Your task to perform on an android device: check android version Image 0: 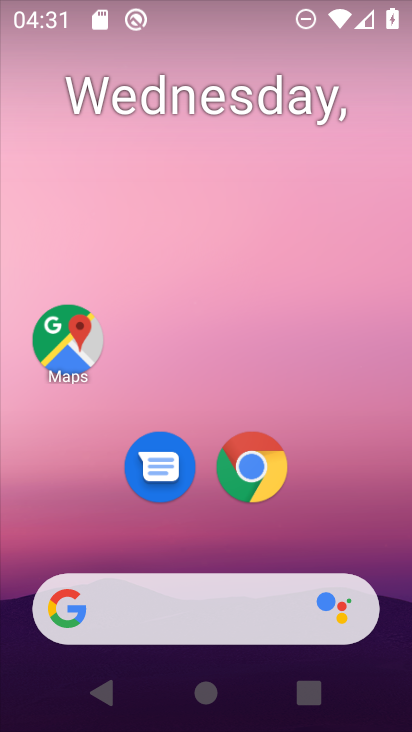
Step 0: drag from (369, 550) to (320, 125)
Your task to perform on an android device: check android version Image 1: 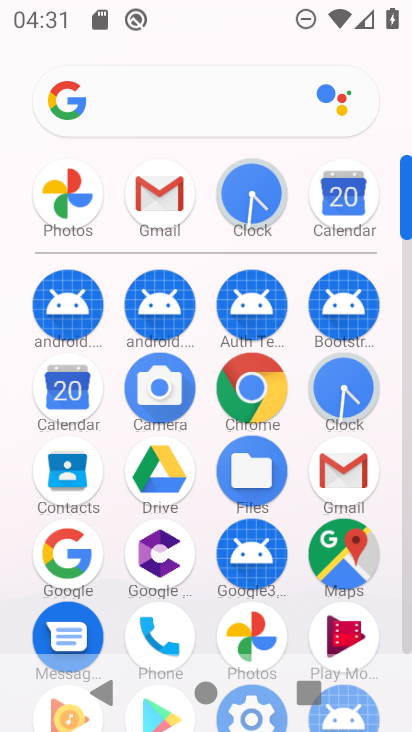
Step 1: click (406, 628)
Your task to perform on an android device: check android version Image 2: 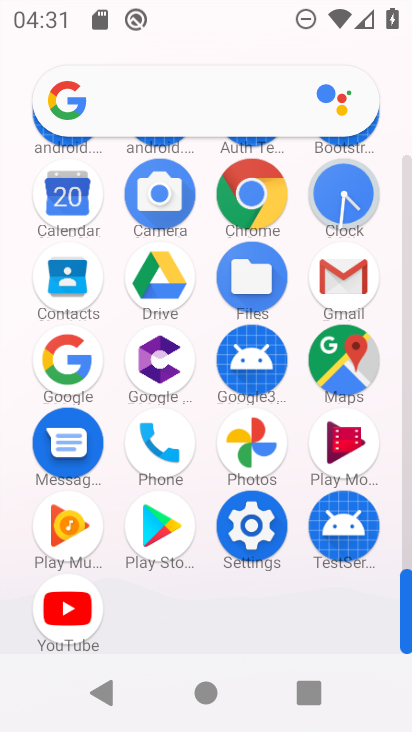
Step 2: click (252, 523)
Your task to perform on an android device: check android version Image 3: 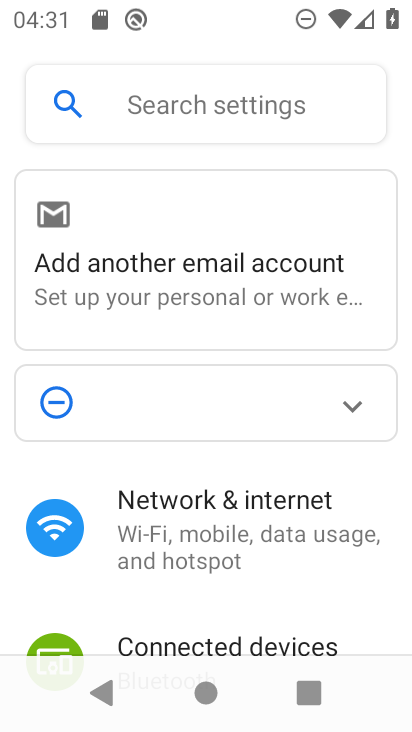
Step 3: drag from (269, 571) to (321, 153)
Your task to perform on an android device: check android version Image 4: 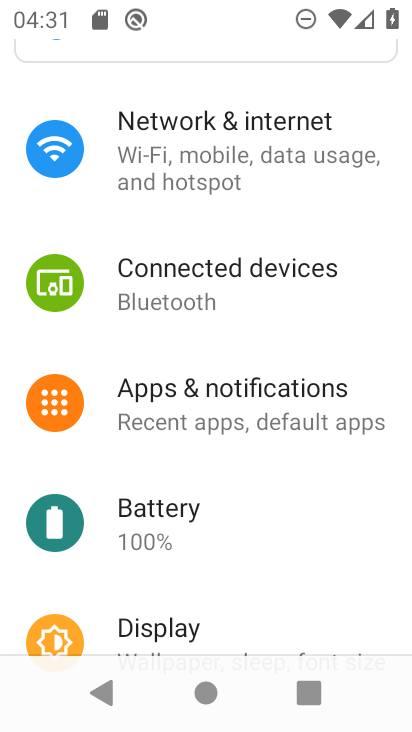
Step 4: drag from (314, 533) to (339, 184)
Your task to perform on an android device: check android version Image 5: 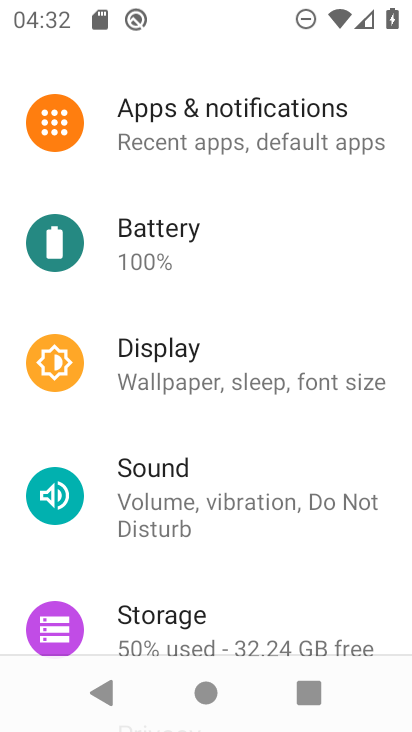
Step 5: drag from (288, 583) to (295, 159)
Your task to perform on an android device: check android version Image 6: 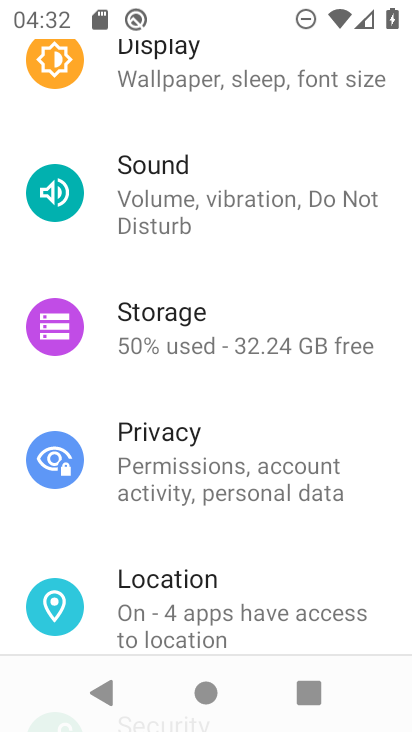
Step 6: drag from (272, 536) to (293, 156)
Your task to perform on an android device: check android version Image 7: 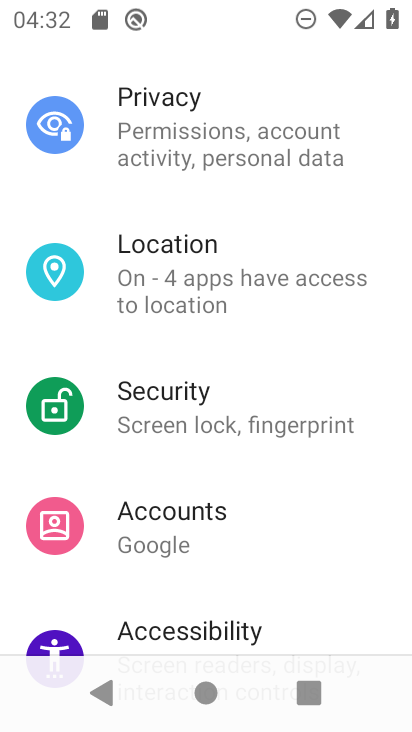
Step 7: drag from (279, 557) to (299, 227)
Your task to perform on an android device: check android version Image 8: 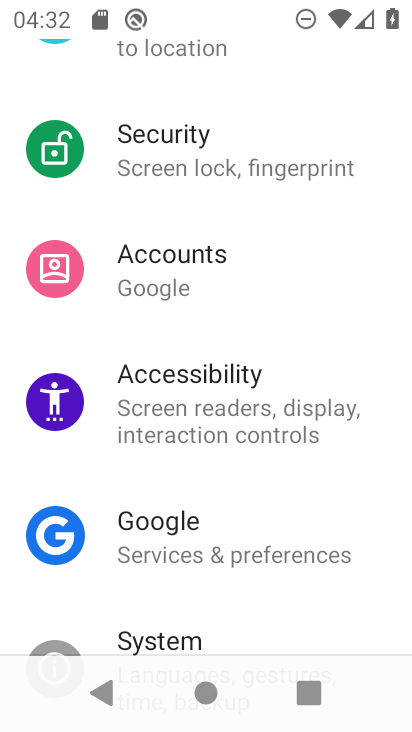
Step 8: drag from (277, 540) to (294, 282)
Your task to perform on an android device: check android version Image 9: 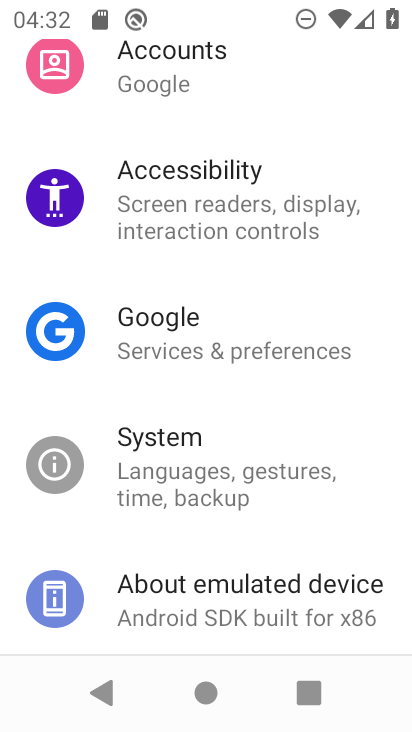
Step 9: click (191, 589)
Your task to perform on an android device: check android version Image 10: 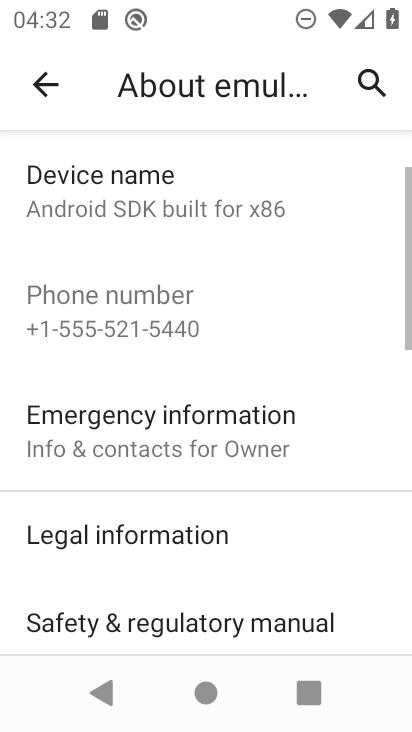
Step 10: drag from (191, 589) to (261, 197)
Your task to perform on an android device: check android version Image 11: 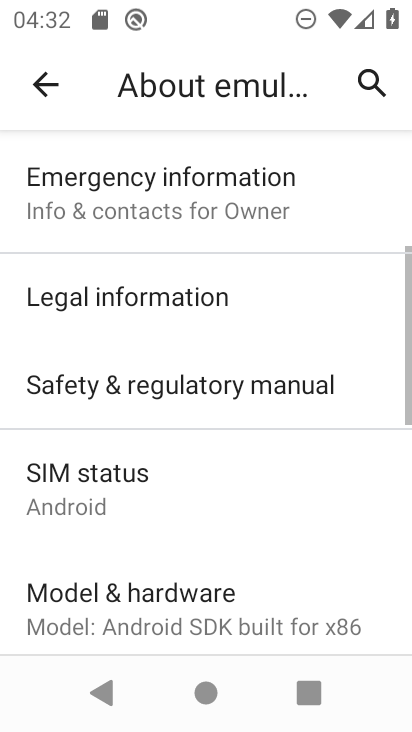
Step 11: drag from (252, 583) to (314, 246)
Your task to perform on an android device: check android version Image 12: 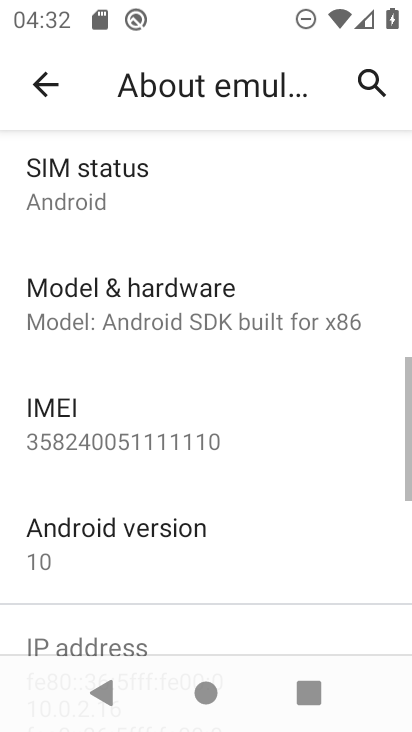
Step 12: click (85, 529)
Your task to perform on an android device: check android version Image 13: 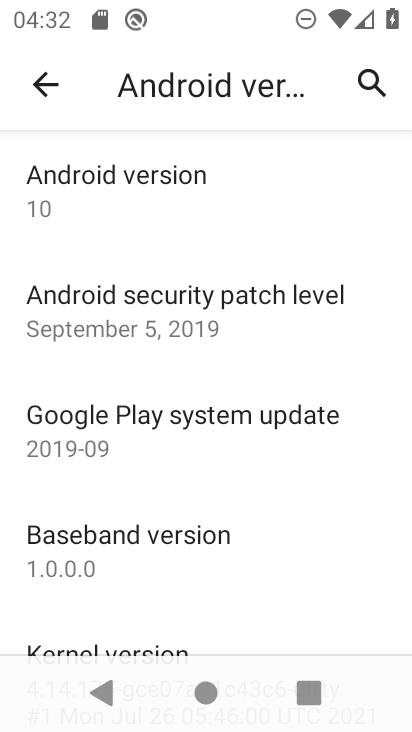
Step 13: task complete